Your task to perform on an android device: turn pop-ups off in chrome Image 0: 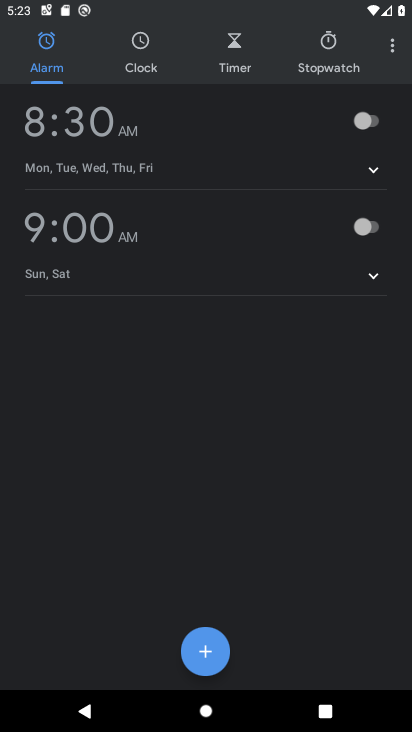
Step 0: press home button
Your task to perform on an android device: turn pop-ups off in chrome Image 1: 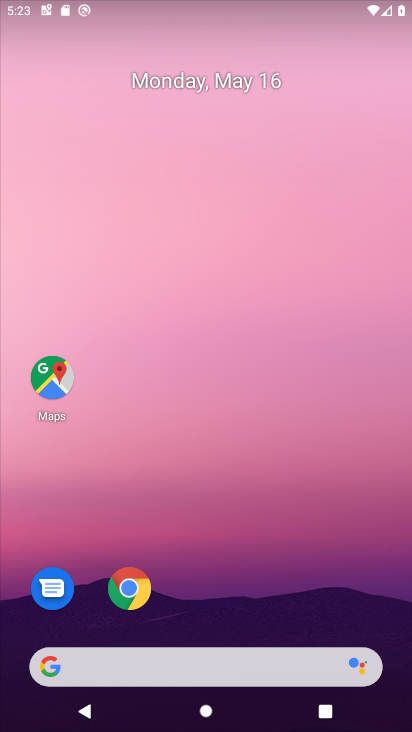
Step 1: drag from (253, 499) to (226, 101)
Your task to perform on an android device: turn pop-ups off in chrome Image 2: 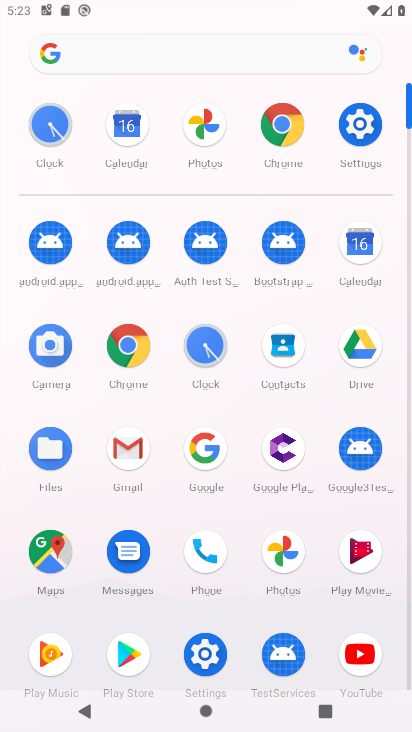
Step 2: click (286, 132)
Your task to perform on an android device: turn pop-ups off in chrome Image 3: 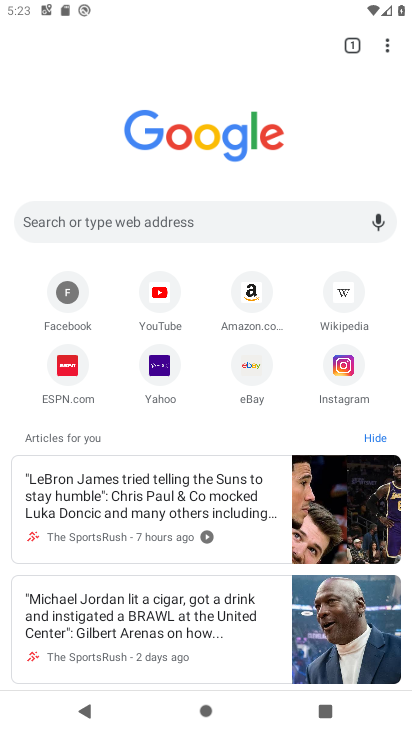
Step 3: click (379, 50)
Your task to perform on an android device: turn pop-ups off in chrome Image 4: 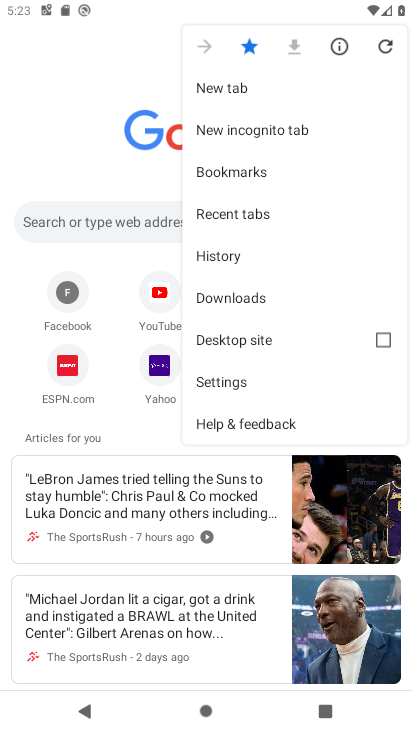
Step 4: click (271, 388)
Your task to perform on an android device: turn pop-ups off in chrome Image 5: 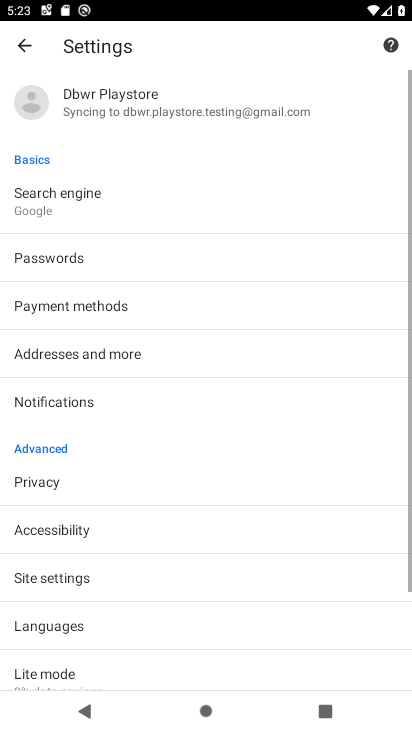
Step 5: drag from (164, 604) to (187, 232)
Your task to perform on an android device: turn pop-ups off in chrome Image 6: 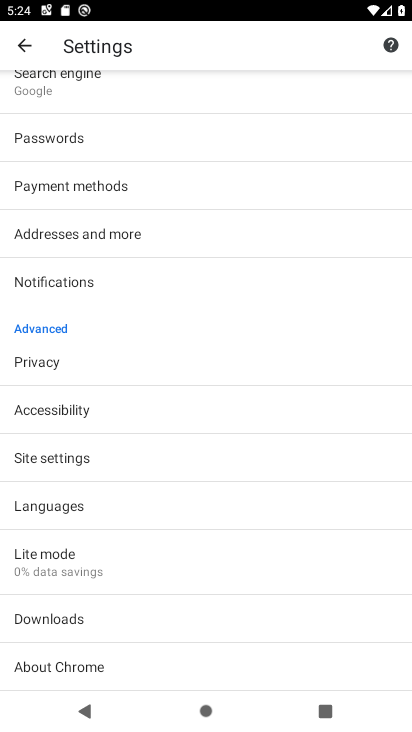
Step 6: click (69, 460)
Your task to perform on an android device: turn pop-ups off in chrome Image 7: 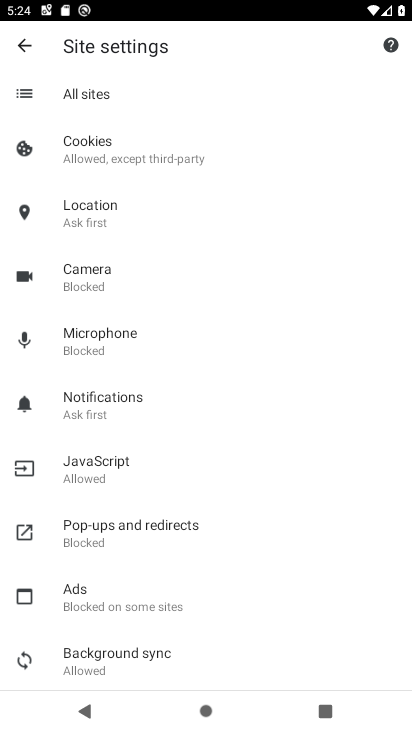
Step 7: click (179, 520)
Your task to perform on an android device: turn pop-ups off in chrome Image 8: 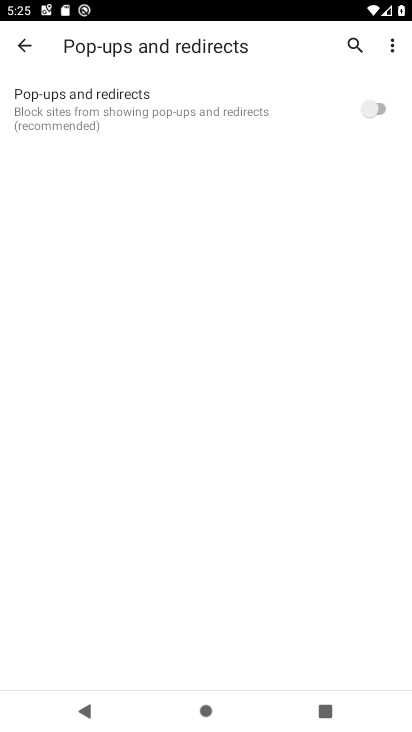
Step 8: task complete